Your task to perform on an android device: Open Reddit.com Image 0: 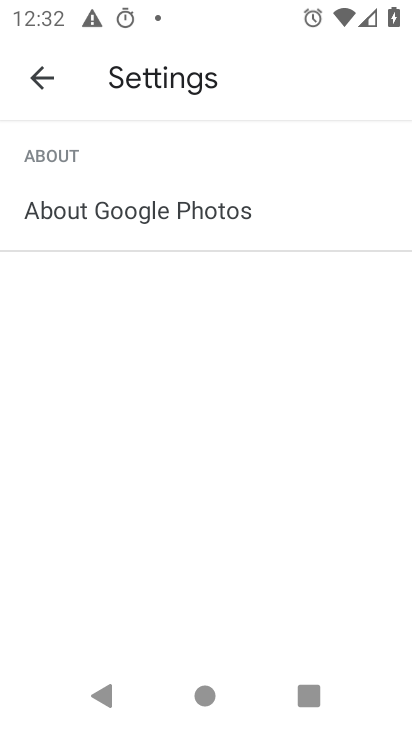
Step 0: press back button
Your task to perform on an android device: Open Reddit.com Image 1: 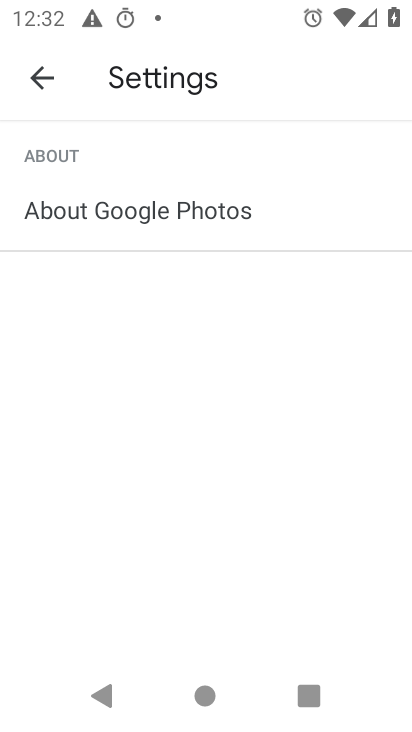
Step 1: click (21, 77)
Your task to perform on an android device: Open Reddit.com Image 2: 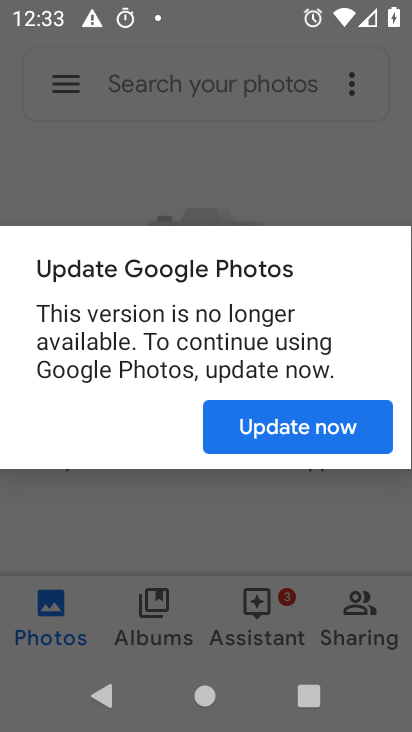
Step 2: press home button
Your task to perform on an android device: Open Reddit.com Image 3: 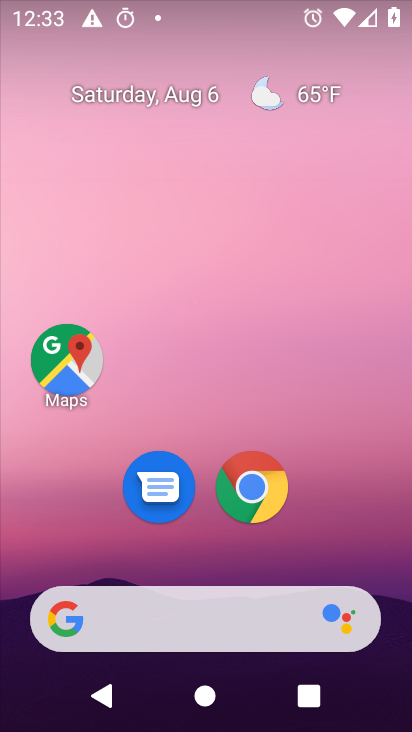
Step 3: click (278, 491)
Your task to perform on an android device: Open Reddit.com Image 4: 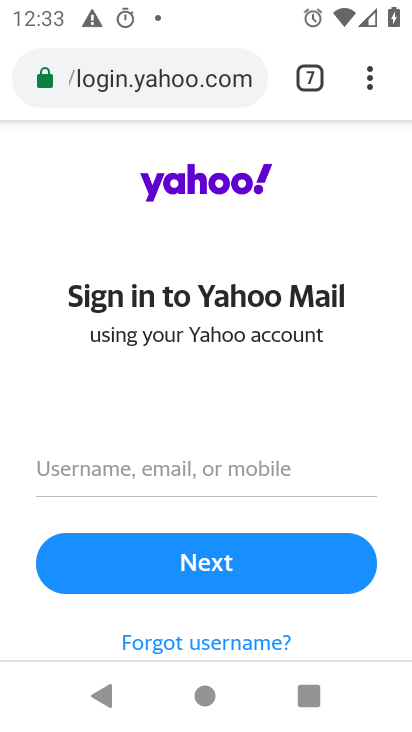
Step 4: click (296, 84)
Your task to perform on an android device: Open Reddit.com Image 5: 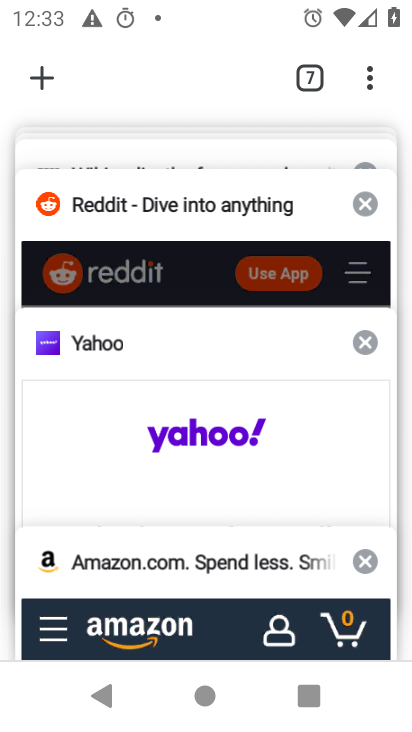
Step 5: click (154, 192)
Your task to perform on an android device: Open Reddit.com Image 6: 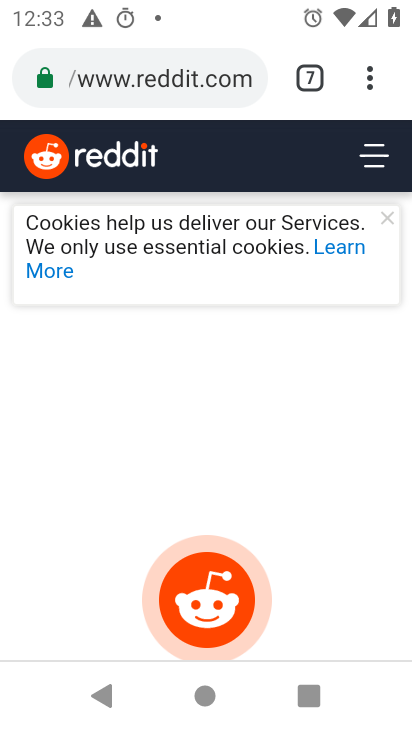
Step 6: task complete